Your task to perform on an android device: Check the news Image 0: 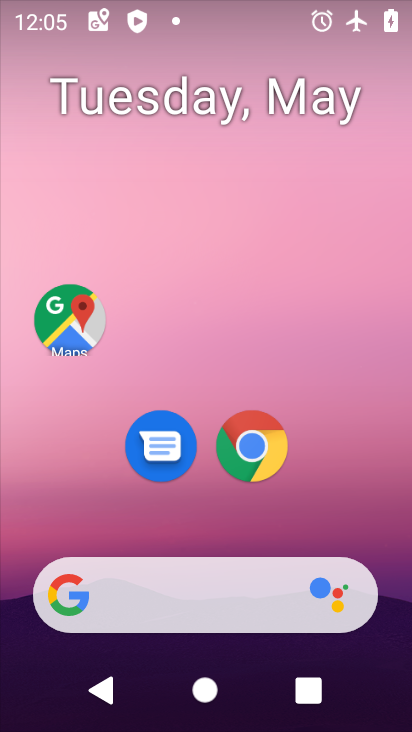
Step 0: drag from (301, 526) to (302, 159)
Your task to perform on an android device: Check the news Image 1: 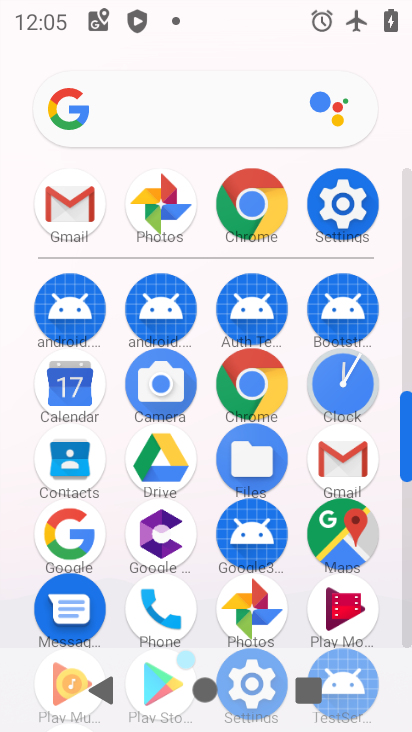
Step 1: click (259, 194)
Your task to perform on an android device: Check the news Image 2: 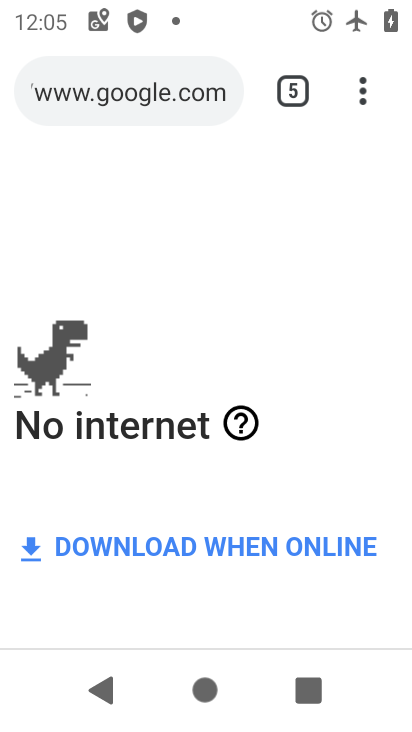
Step 2: click (356, 88)
Your task to perform on an android device: Check the news Image 3: 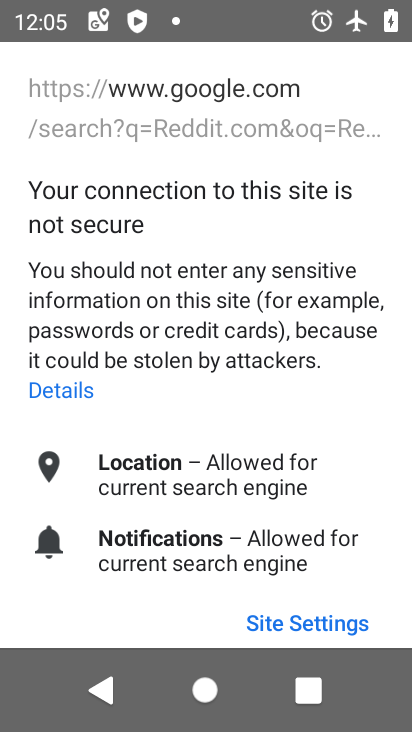
Step 3: press back button
Your task to perform on an android device: Check the news Image 4: 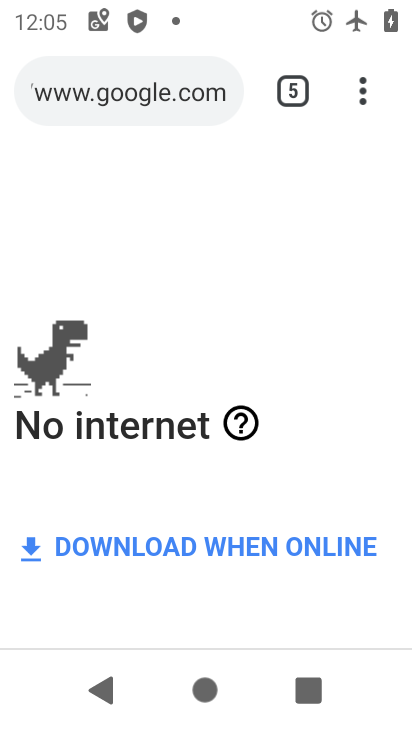
Step 4: click (357, 91)
Your task to perform on an android device: Check the news Image 5: 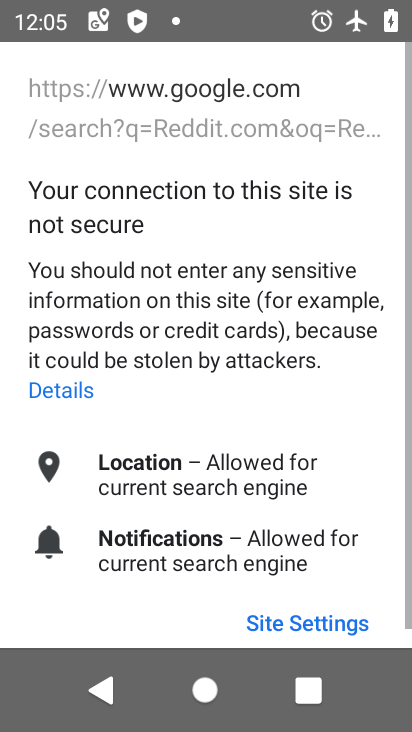
Step 5: click (362, 94)
Your task to perform on an android device: Check the news Image 6: 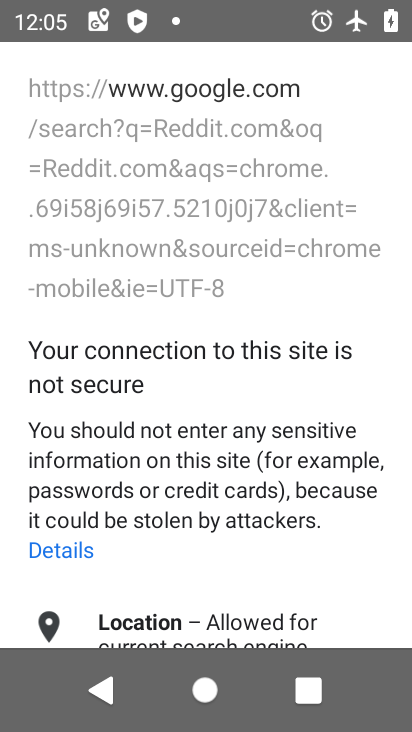
Step 6: press back button
Your task to perform on an android device: Check the news Image 7: 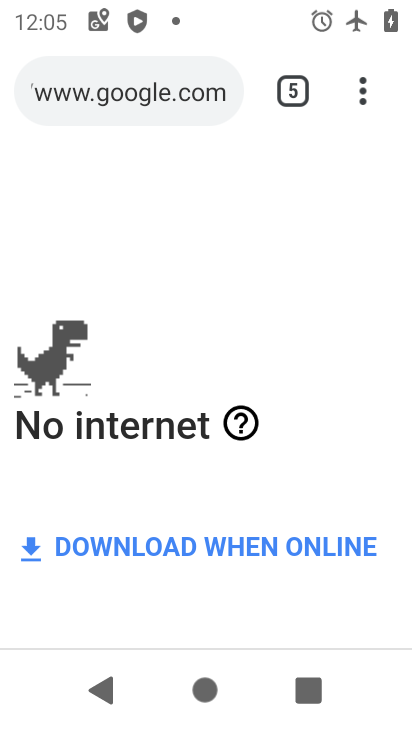
Step 7: click (352, 76)
Your task to perform on an android device: Check the news Image 8: 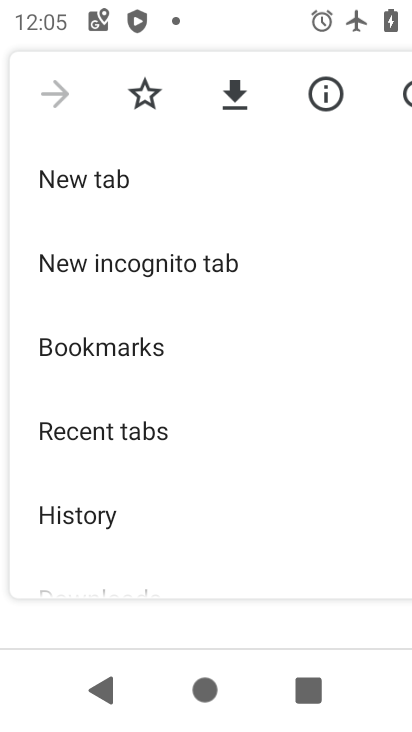
Step 8: click (144, 172)
Your task to perform on an android device: Check the news Image 9: 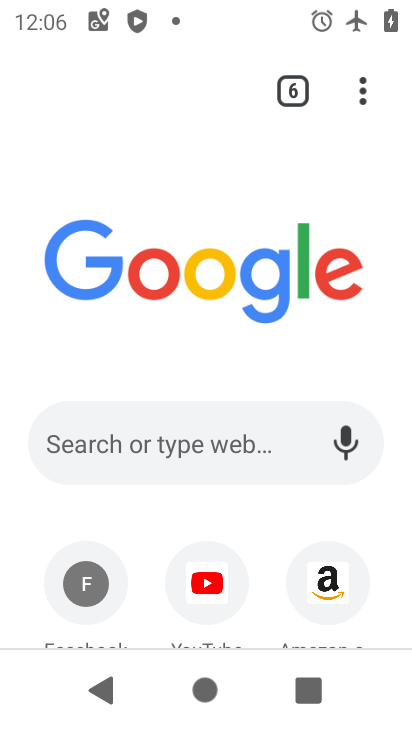
Step 9: click (272, 432)
Your task to perform on an android device: Check the news Image 10: 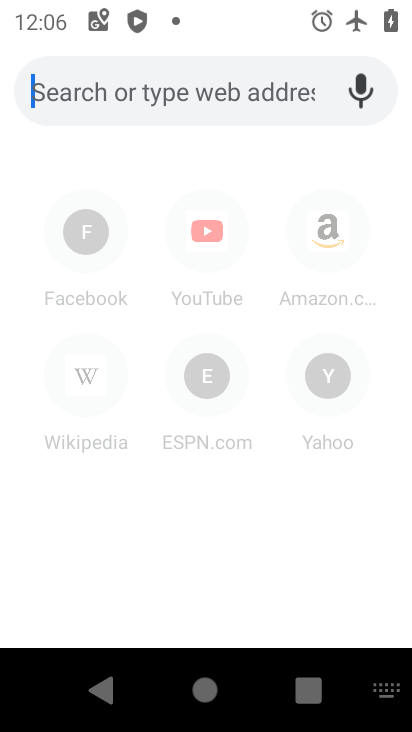
Step 10: type "Check the news"
Your task to perform on an android device: Check the news Image 11: 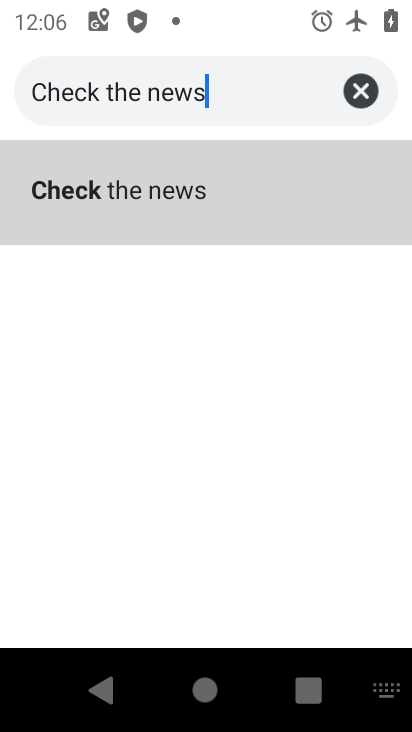
Step 11: click (112, 196)
Your task to perform on an android device: Check the news Image 12: 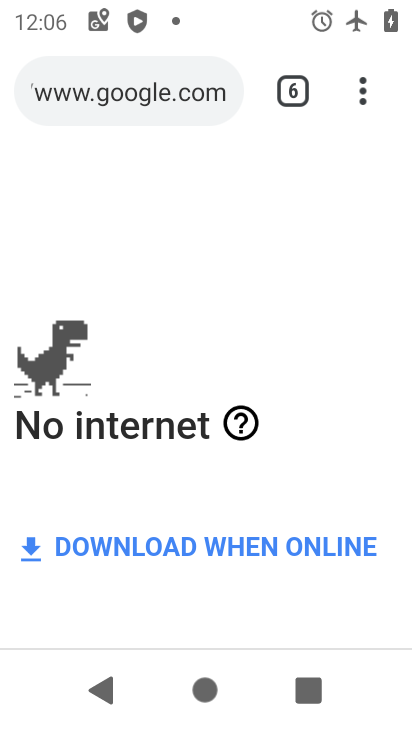
Step 12: task complete